Your task to perform on an android device: set an alarm Image 0: 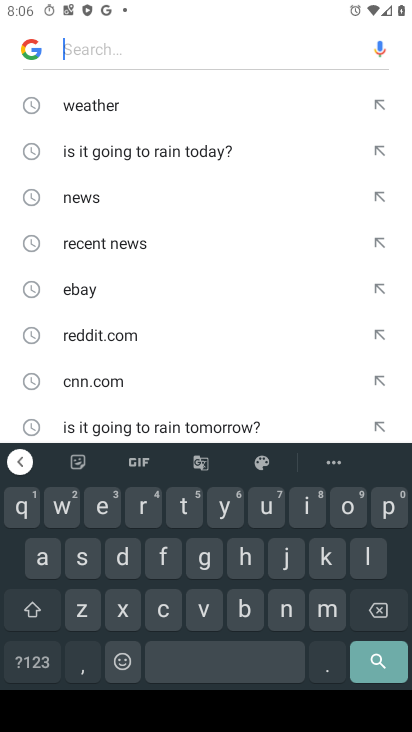
Step 0: press home button
Your task to perform on an android device: set an alarm Image 1: 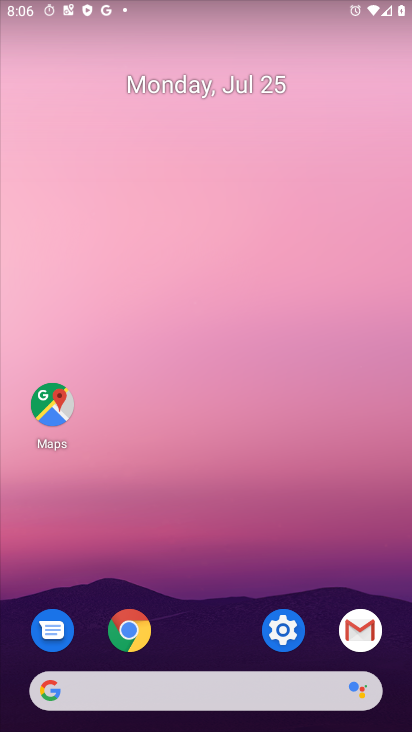
Step 1: drag from (244, 708) to (251, 248)
Your task to perform on an android device: set an alarm Image 2: 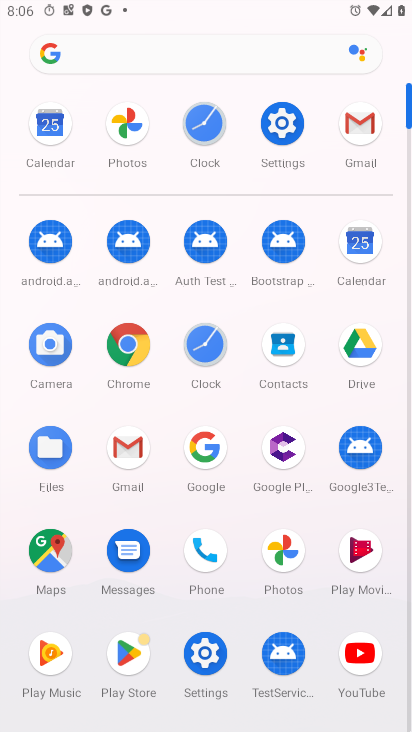
Step 2: click (201, 353)
Your task to perform on an android device: set an alarm Image 3: 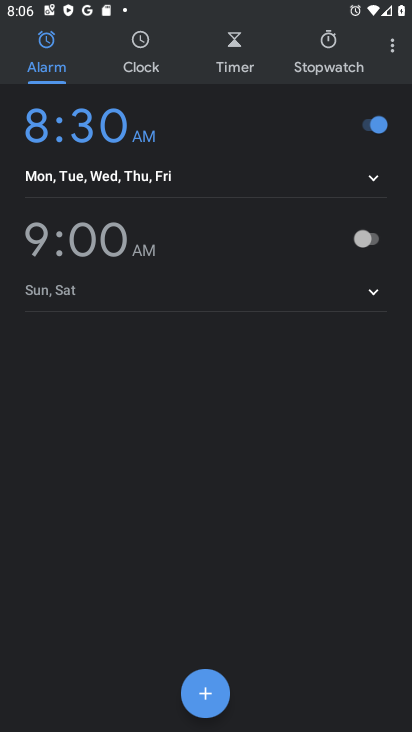
Step 3: click (209, 240)
Your task to perform on an android device: set an alarm Image 4: 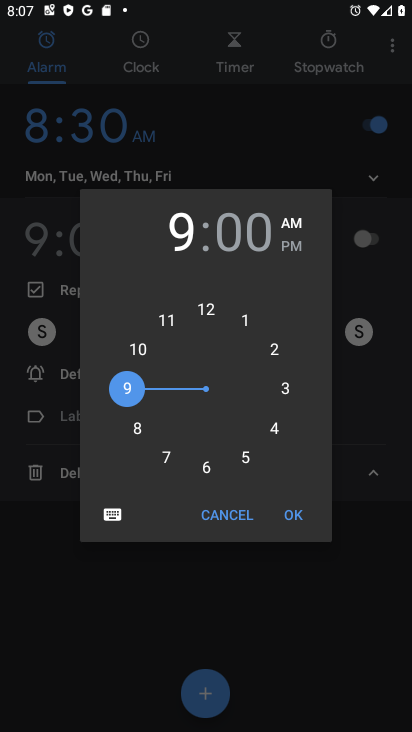
Step 4: click (285, 522)
Your task to perform on an android device: set an alarm Image 5: 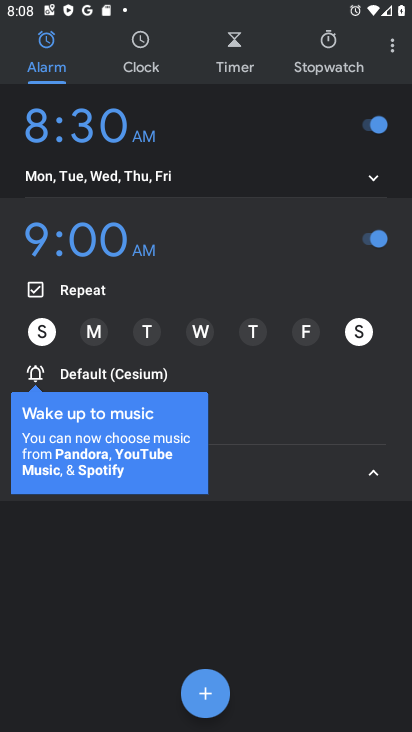
Step 5: task complete